Your task to perform on an android device: turn off javascript in the chrome app Image 0: 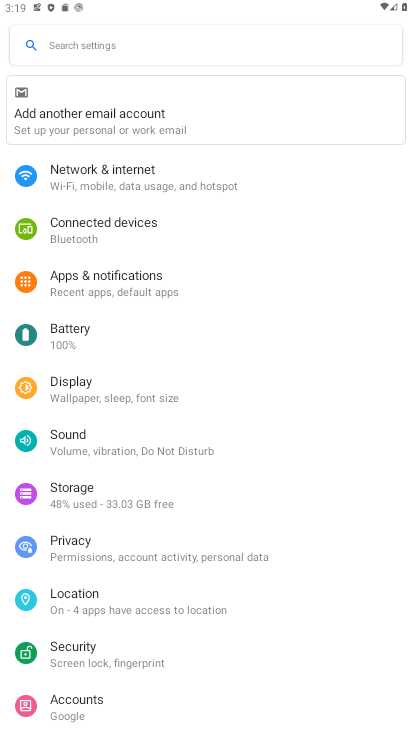
Step 0: press back button
Your task to perform on an android device: turn off javascript in the chrome app Image 1: 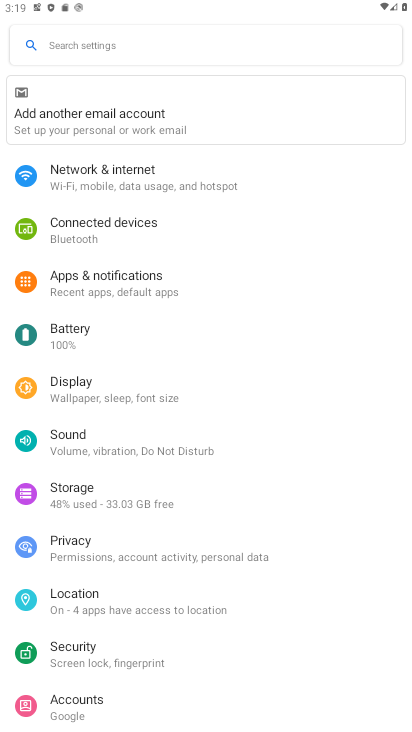
Step 1: press back button
Your task to perform on an android device: turn off javascript in the chrome app Image 2: 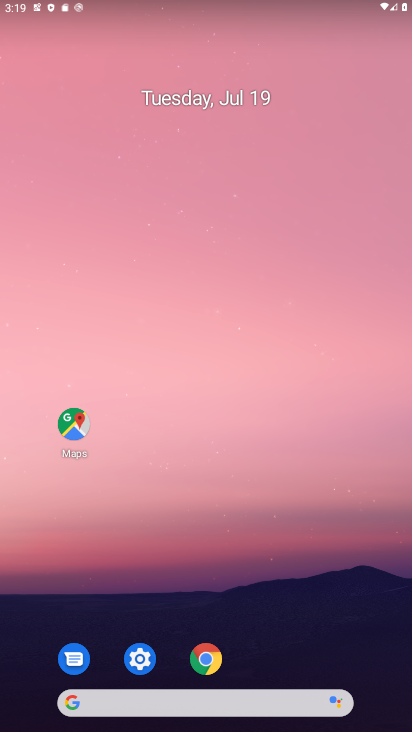
Step 2: drag from (330, 650) to (223, 344)
Your task to perform on an android device: turn off javascript in the chrome app Image 3: 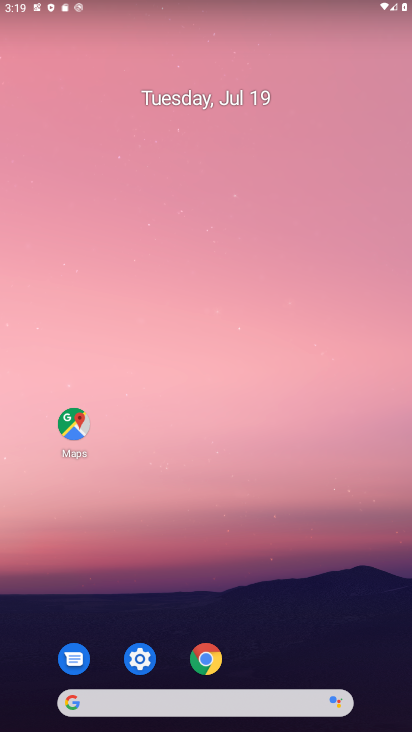
Step 3: drag from (267, 690) to (160, 200)
Your task to perform on an android device: turn off javascript in the chrome app Image 4: 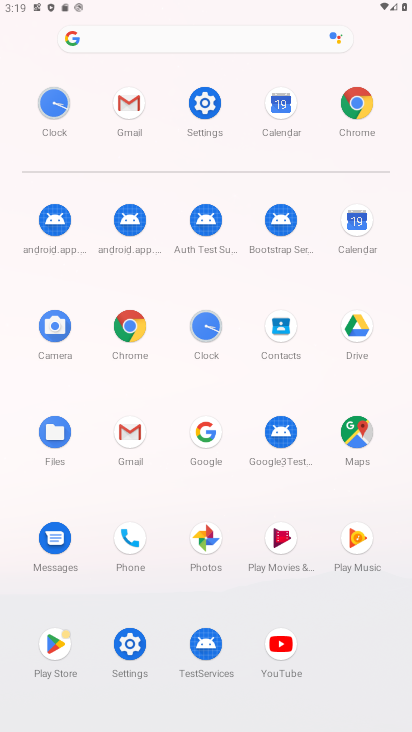
Step 4: click (357, 107)
Your task to perform on an android device: turn off javascript in the chrome app Image 5: 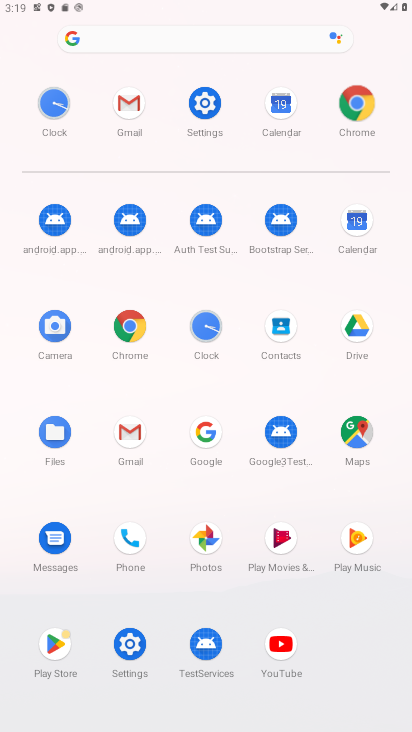
Step 5: click (360, 104)
Your task to perform on an android device: turn off javascript in the chrome app Image 6: 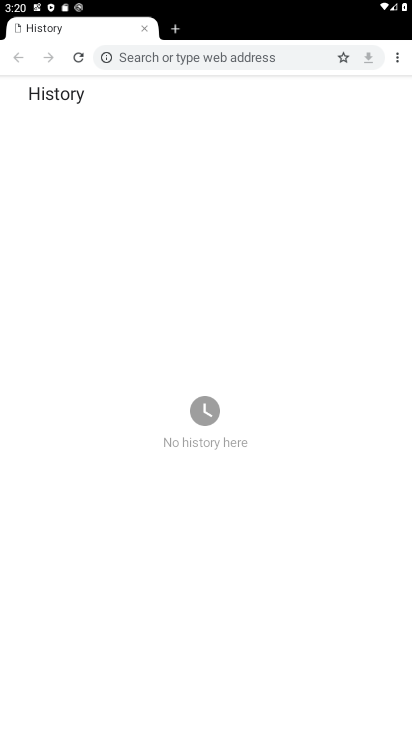
Step 6: drag from (398, 51) to (268, 269)
Your task to perform on an android device: turn off javascript in the chrome app Image 7: 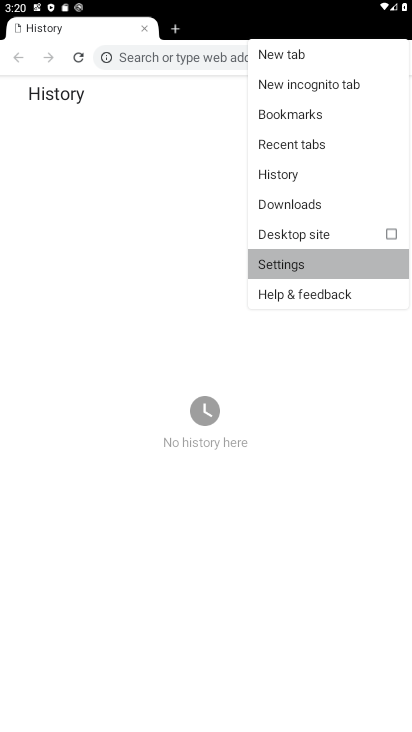
Step 7: click (268, 269)
Your task to perform on an android device: turn off javascript in the chrome app Image 8: 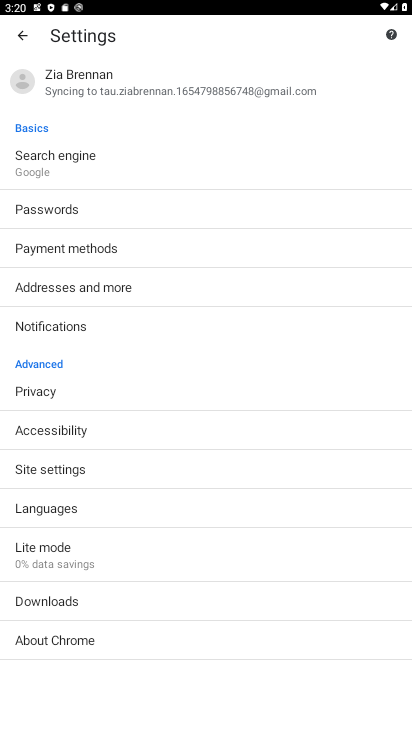
Step 8: click (36, 465)
Your task to perform on an android device: turn off javascript in the chrome app Image 9: 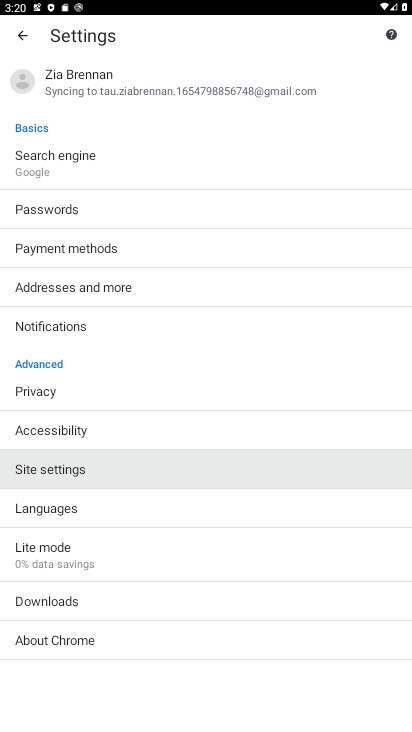
Step 9: click (40, 469)
Your task to perform on an android device: turn off javascript in the chrome app Image 10: 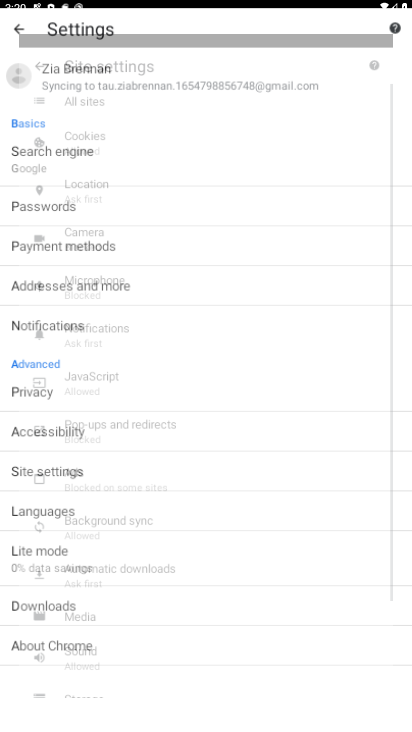
Step 10: click (40, 469)
Your task to perform on an android device: turn off javascript in the chrome app Image 11: 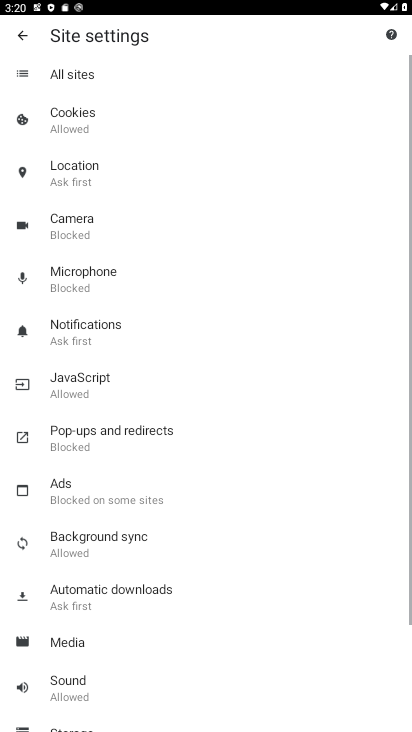
Step 11: click (40, 469)
Your task to perform on an android device: turn off javascript in the chrome app Image 12: 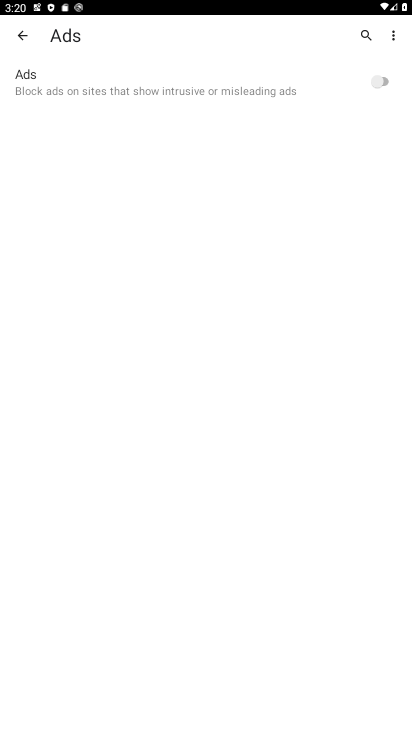
Step 12: click (26, 28)
Your task to perform on an android device: turn off javascript in the chrome app Image 13: 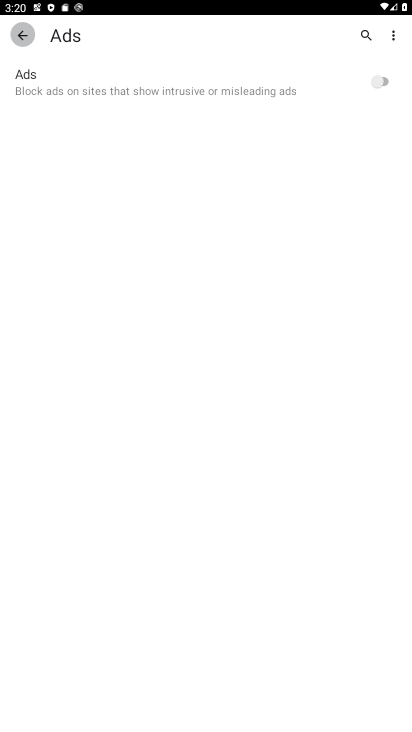
Step 13: click (24, 28)
Your task to perform on an android device: turn off javascript in the chrome app Image 14: 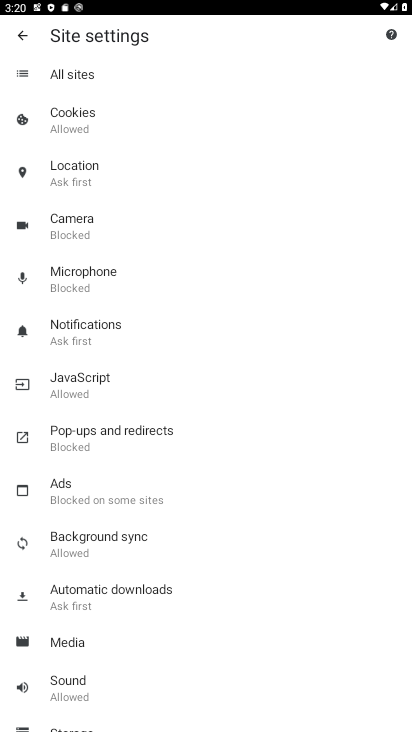
Step 14: click (77, 378)
Your task to perform on an android device: turn off javascript in the chrome app Image 15: 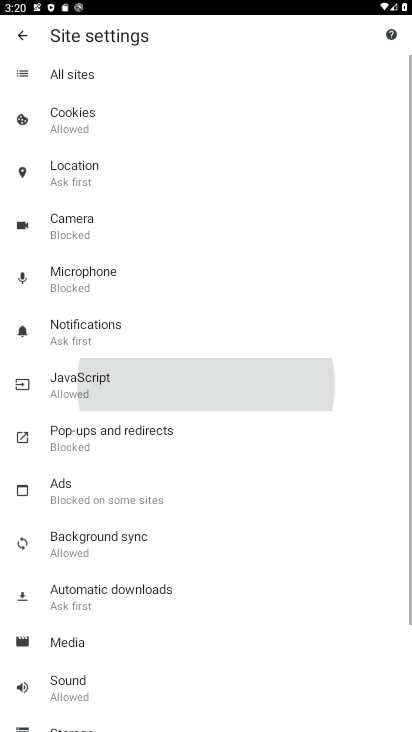
Step 15: click (76, 375)
Your task to perform on an android device: turn off javascript in the chrome app Image 16: 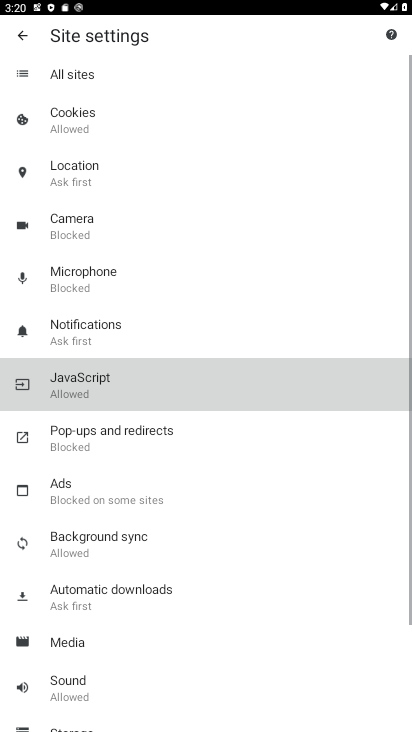
Step 16: click (76, 375)
Your task to perform on an android device: turn off javascript in the chrome app Image 17: 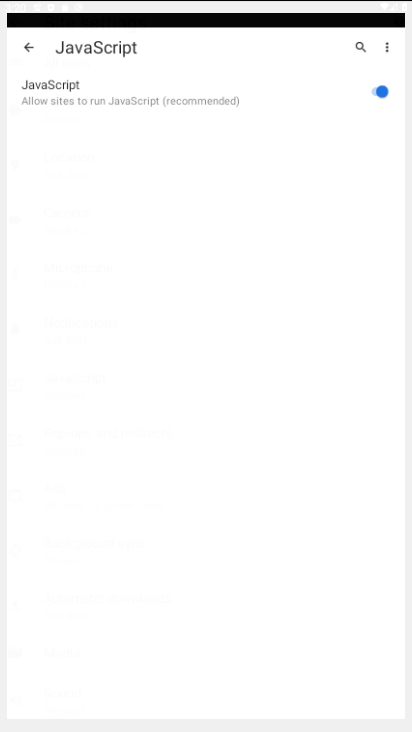
Step 17: click (76, 375)
Your task to perform on an android device: turn off javascript in the chrome app Image 18: 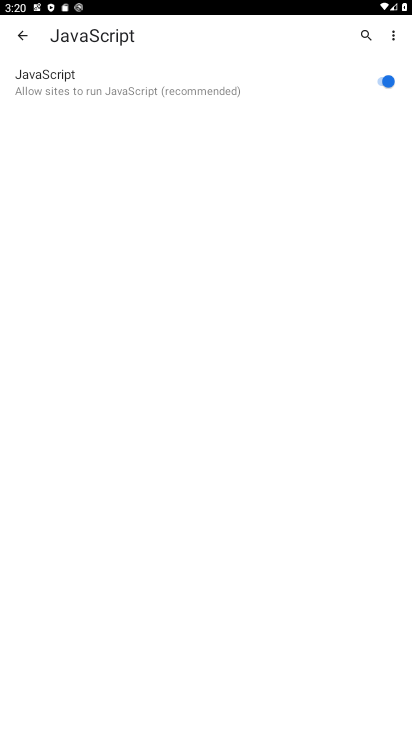
Step 18: click (387, 78)
Your task to perform on an android device: turn off javascript in the chrome app Image 19: 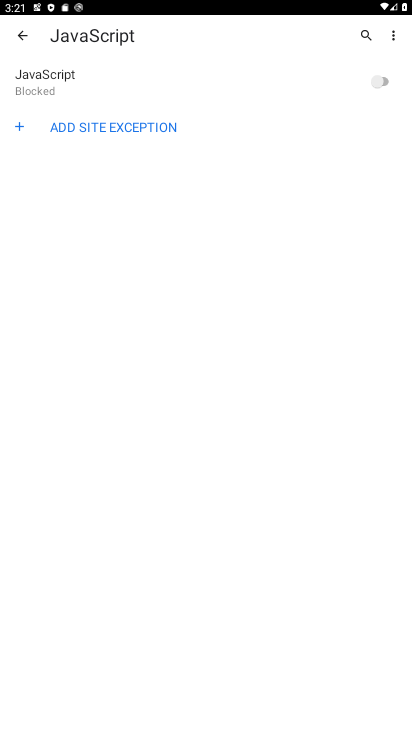
Step 19: task complete